Your task to perform on an android device: set the timer Image 0: 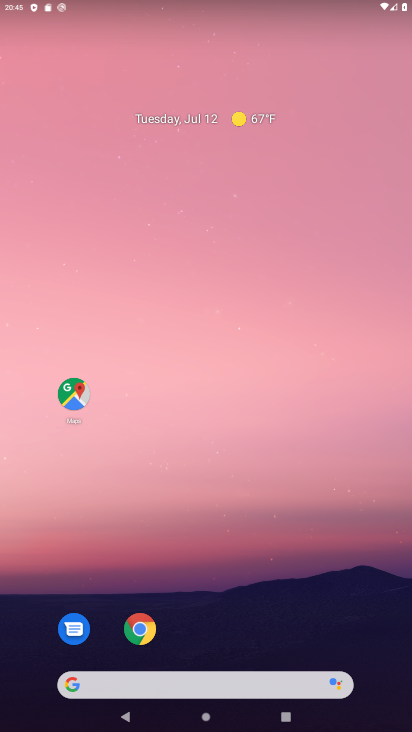
Step 0: drag from (250, 714) to (269, 8)
Your task to perform on an android device: set the timer Image 1: 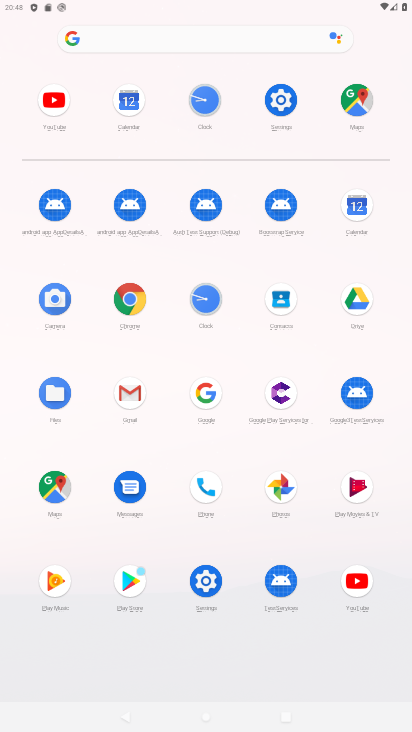
Step 1: click (206, 101)
Your task to perform on an android device: set the timer Image 2: 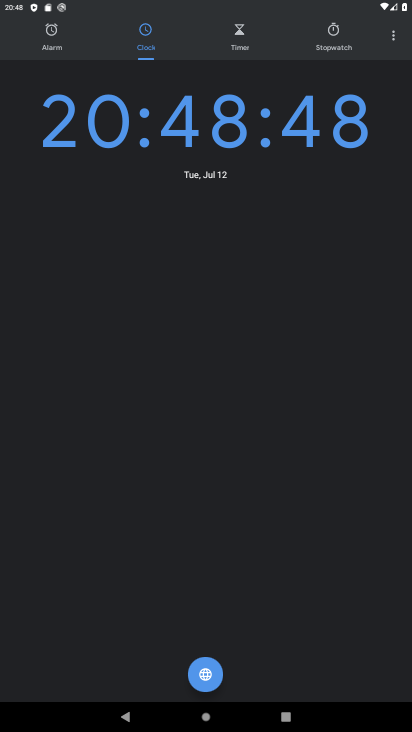
Step 2: click (245, 35)
Your task to perform on an android device: set the timer Image 3: 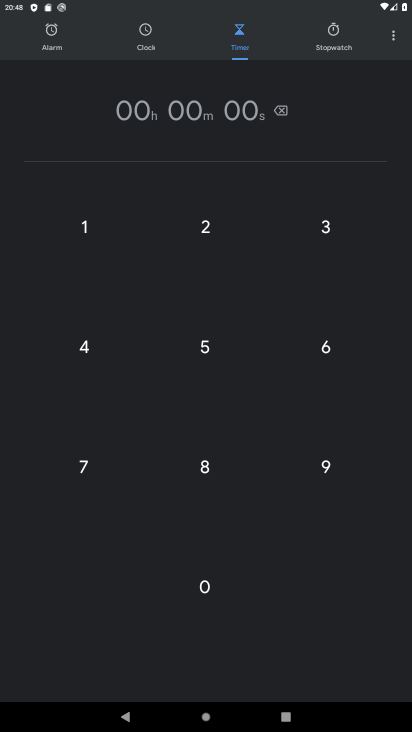
Step 3: click (198, 349)
Your task to perform on an android device: set the timer Image 4: 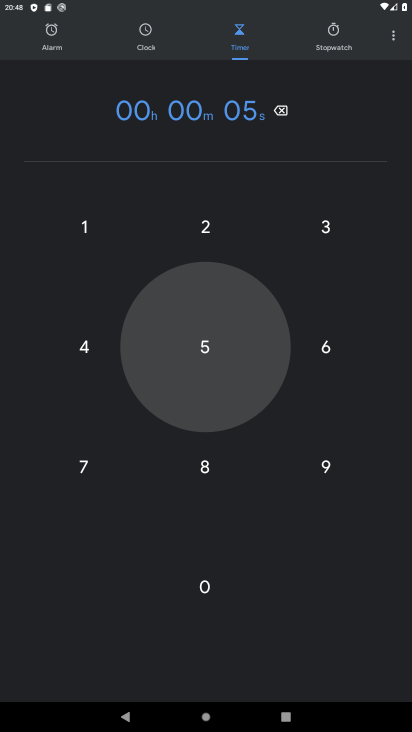
Step 4: click (335, 464)
Your task to perform on an android device: set the timer Image 5: 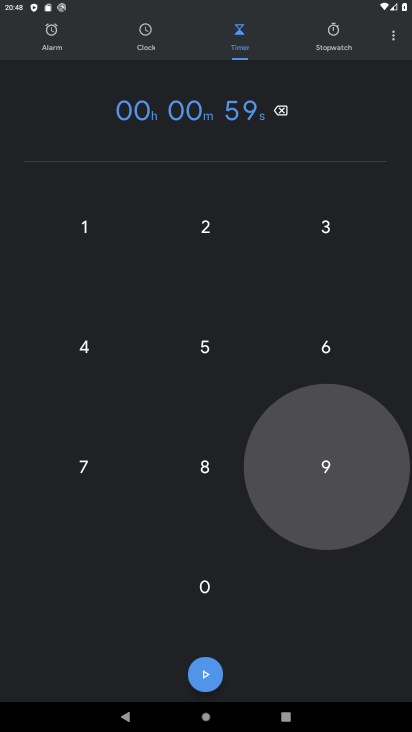
Step 5: click (315, 349)
Your task to perform on an android device: set the timer Image 6: 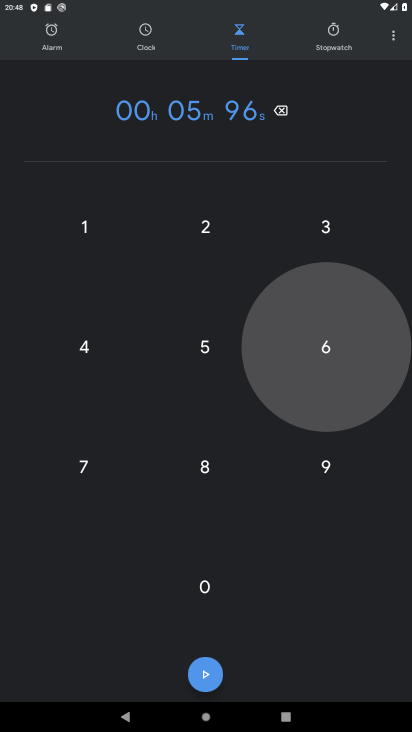
Step 6: click (341, 221)
Your task to perform on an android device: set the timer Image 7: 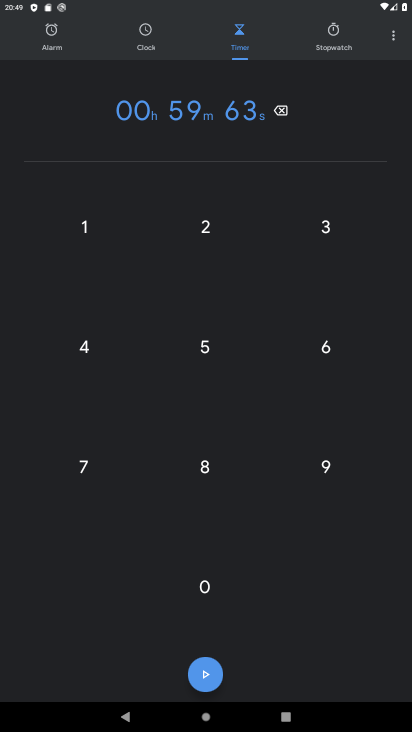
Step 7: task complete